Your task to perform on an android device: Open Maps and search for coffee Image 0: 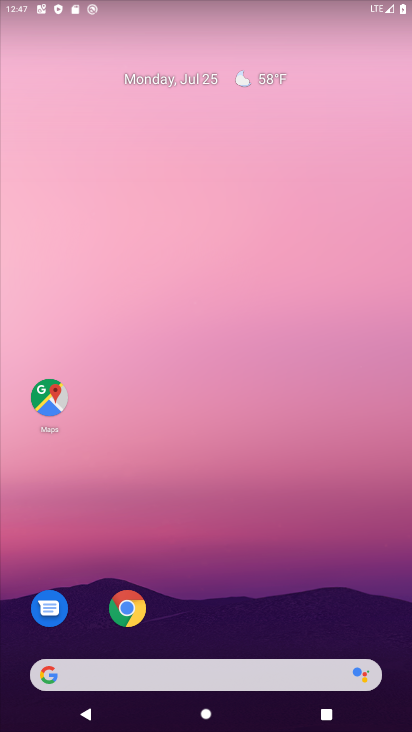
Step 0: click (48, 396)
Your task to perform on an android device: Open Maps and search for coffee Image 1: 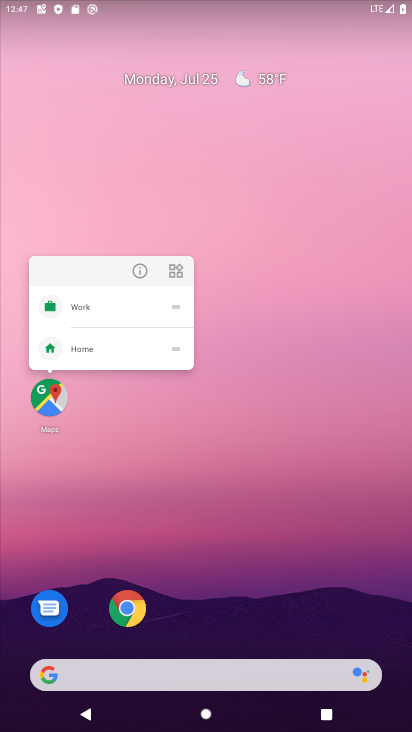
Step 1: click (48, 397)
Your task to perform on an android device: Open Maps and search for coffee Image 2: 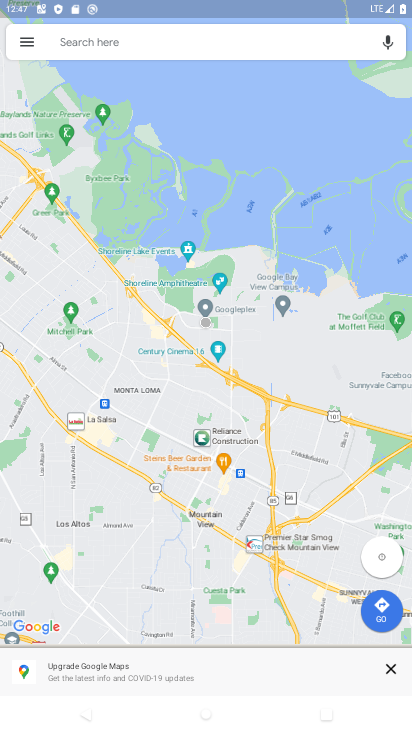
Step 2: click (216, 46)
Your task to perform on an android device: Open Maps and search for coffee Image 3: 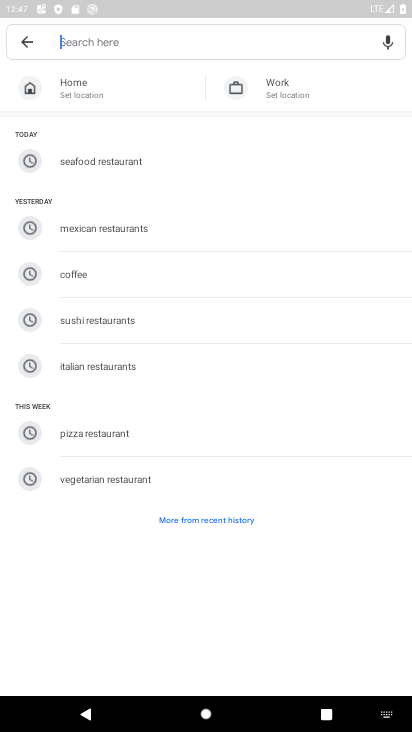
Step 3: type "coffee"
Your task to perform on an android device: Open Maps and search for coffee Image 4: 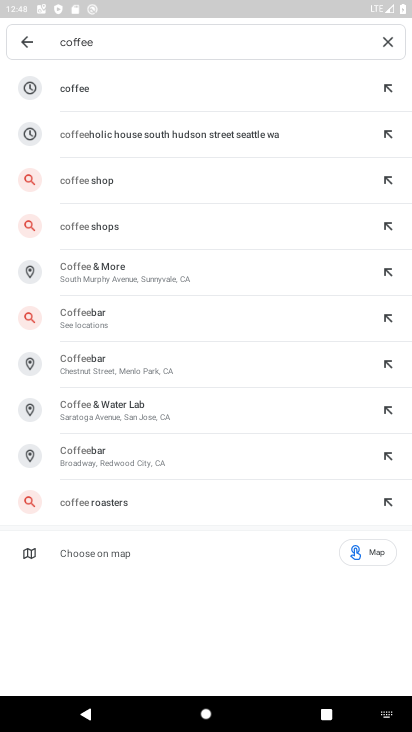
Step 4: click (70, 92)
Your task to perform on an android device: Open Maps and search for coffee Image 5: 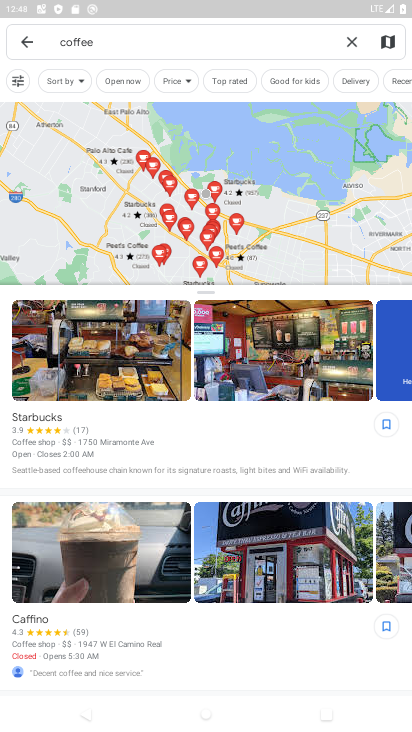
Step 5: task complete